Your task to perform on an android device: toggle pop-ups in chrome Image 0: 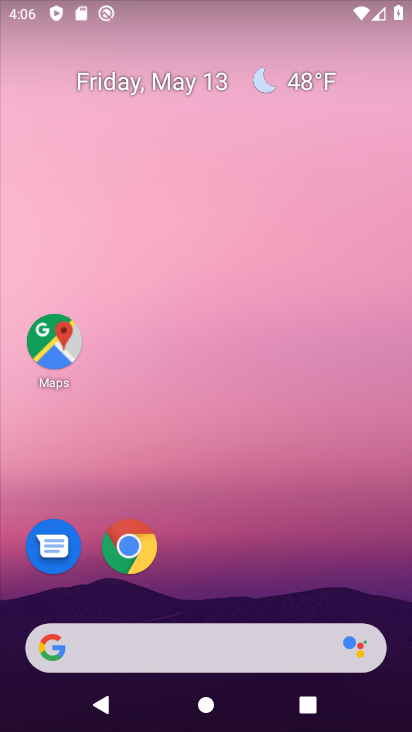
Step 0: drag from (226, 418) to (126, 107)
Your task to perform on an android device: toggle pop-ups in chrome Image 1: 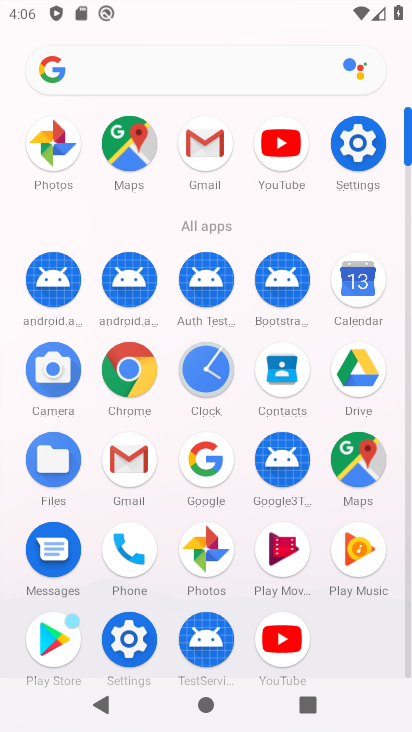
Step 1: click (126, 375)
Your task to perform on an android device: toggle pop-ups in chrome Image 2: 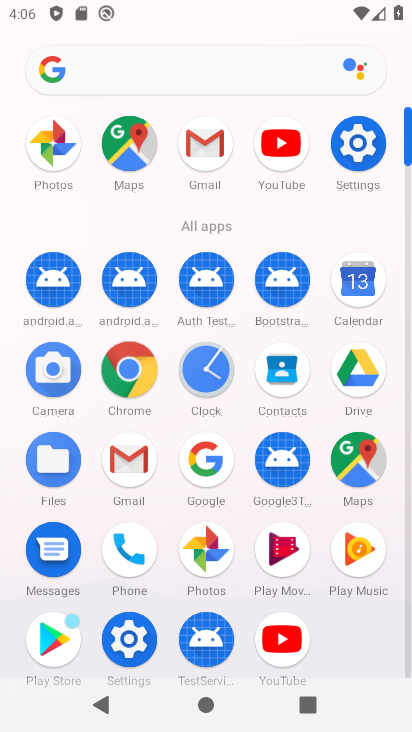
Step 2: click (154, 364)
Your task to perform on an android device: toggle pop-ups in chrome Image 3: 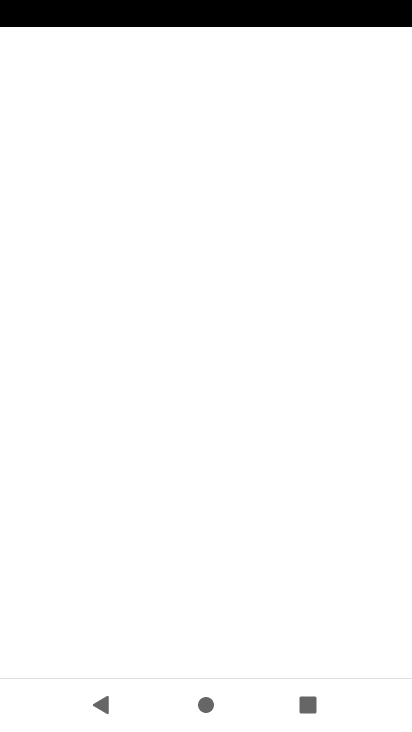
Step 3: click (158, 362)
Your task to perform on an android device: toggle pop-ups in chrome Image 4: 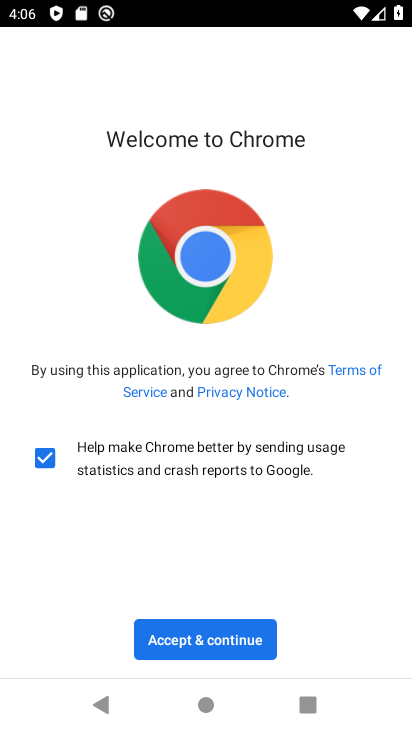
Step 4: click (228, 642)
Your task to perform on an android device: toggle pop-ups in chrome Image 5: 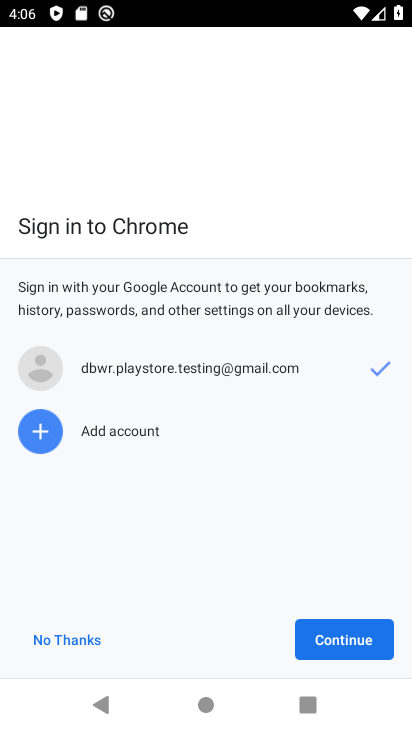
Step 5: click (348, 627)
Your task to perform on an android device: toggle pop-ups in chrome Image 6: 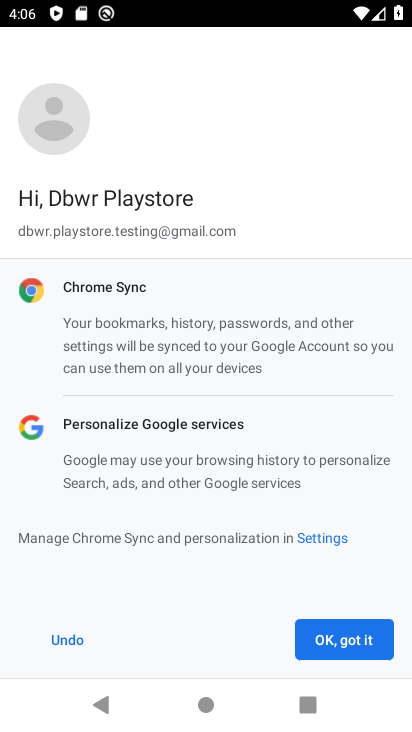
Step 6: click (349, 633)
Your task to perform on an android device: toggle pop-ups in chrome Image 7: 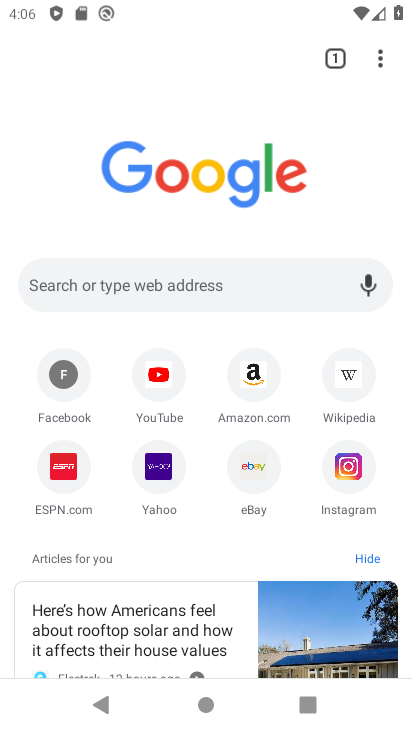
Step 7: drag from (377, 65) to (176, 484)
Your task to perform on an android device: toggle pop-ups in chrome Image 8: 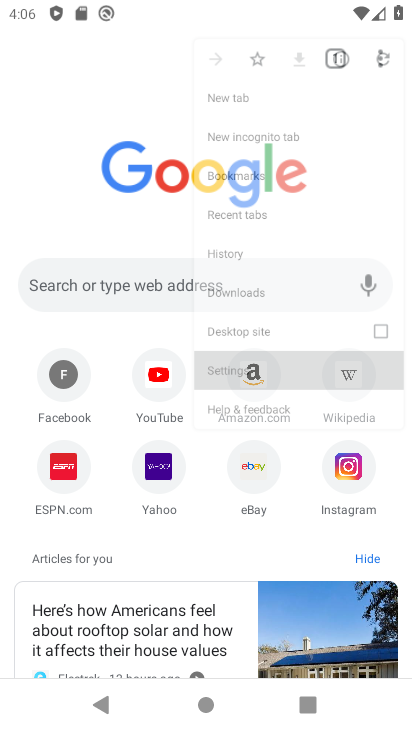
Step 8: click (176, 484)
Your task to perform on an android device: toggle pop-ups in chrome Image 9: 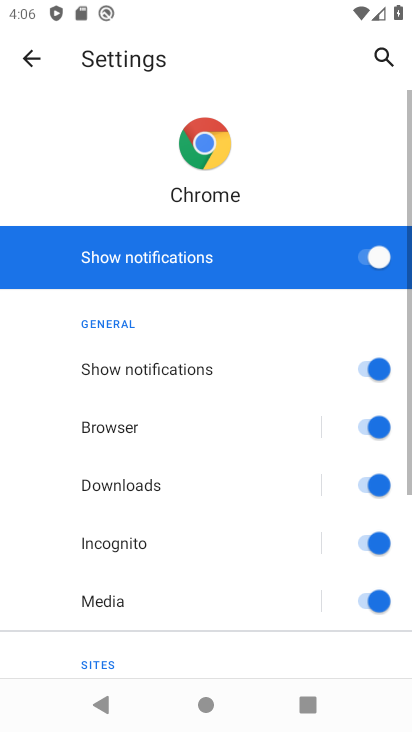
Step 9: click (33, 57)
Your task to perform on an android device: toggle pop-ups in chrome Image 10: 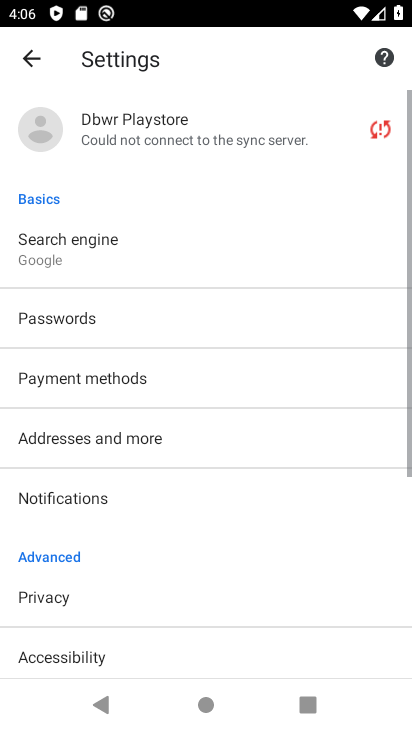
Step 10: drag from (118, 481) to (62, 80)
Your task to perform on an android device: toggle pop-ups in chrome Image 11: 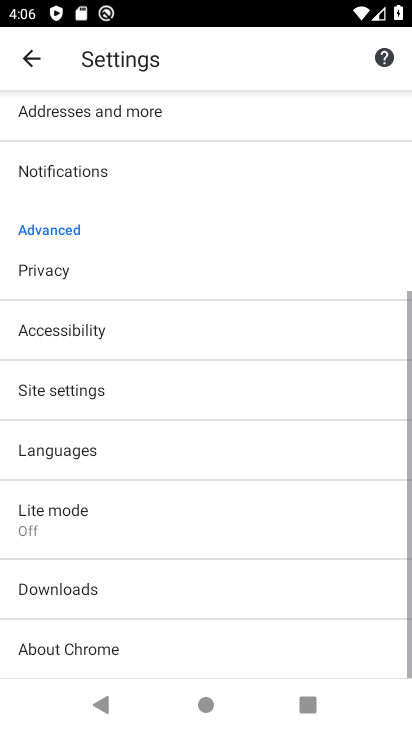
Step 11: drag from (87, 515) to (106, 127)
Your task to perform on an android device: toggle pop-ups in chrome Image 12: 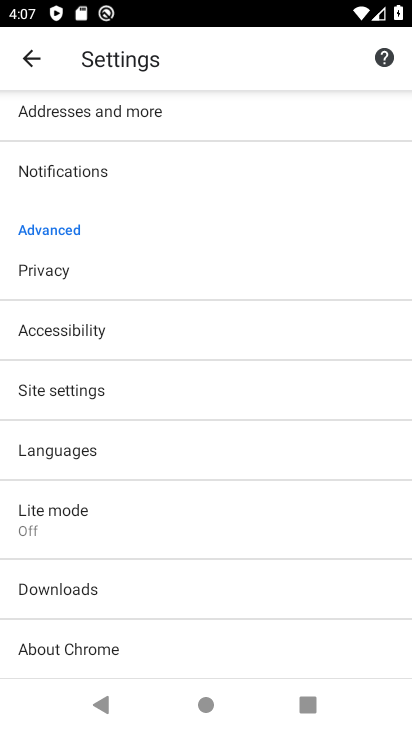
Step 12: drag from (88, 503) to (82, 86)
Your task to perform on an android device: toggle pop-ups in chrome Image 13: 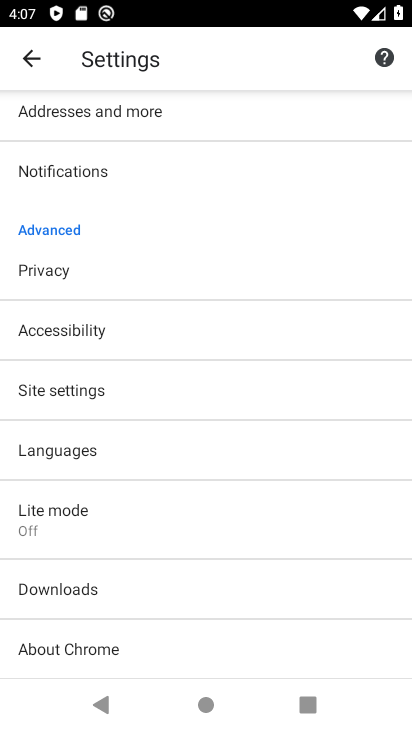
Step 13: click (53, 383)
Your task to perform on an android device: toggle pop-ups in chrome Image 14: 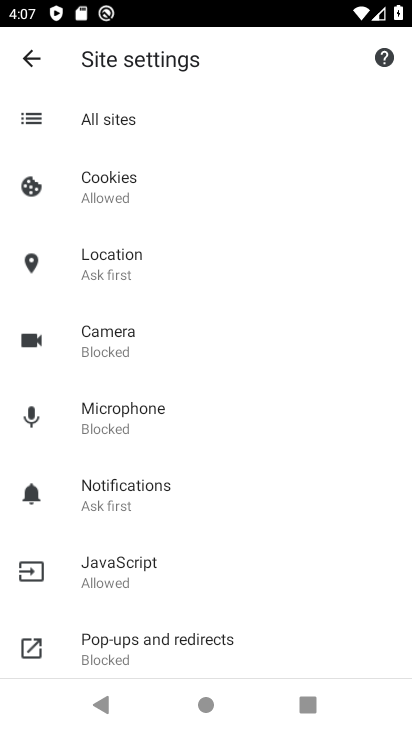
Step 14: drag from (140, 564) to (106, 23)
Your task to perform on an android device: toggle pop-ups in chrome Image 15: 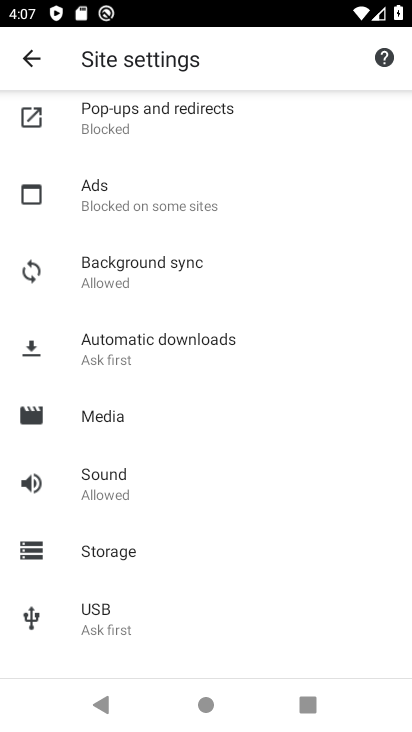
Step 15: click (118, 119)
Your task to perform on an android device: toggle pop-ups in chrome Image 16: 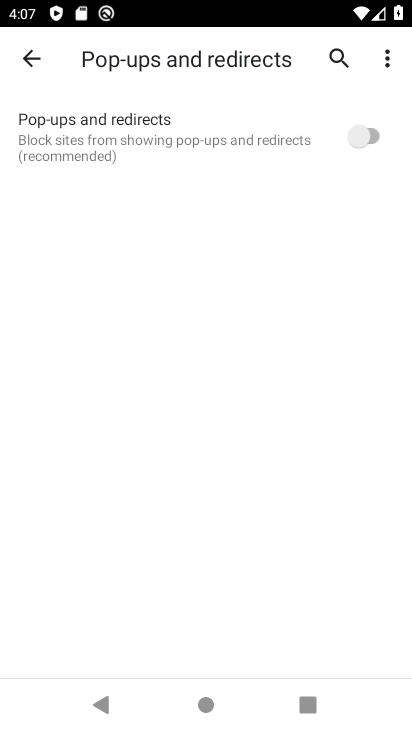
Step 16: click (363, 133)
Your task to perform on an android device: toggle pop-ups in chrome Image 17: 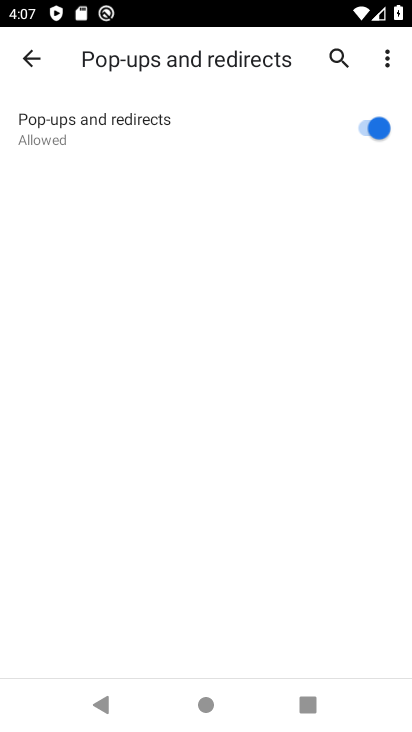
Step 17: task complete